Your task to perform on an android device: change notification settings in the gmail app Image 0: 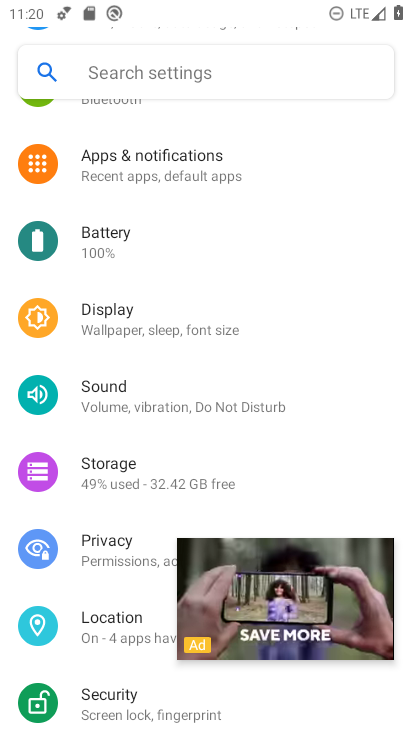
Step 0: click (313, 575)
Your task to perform on an android device: change notification settings in the gmail app Image 1: 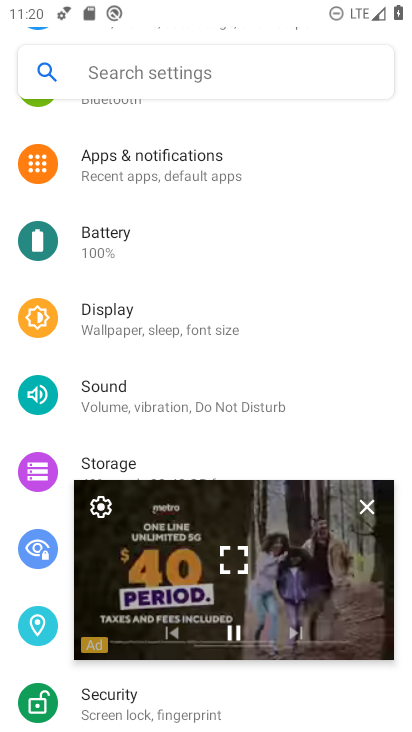
Step 1: click (363, 517)
Your task to perform on an android device: change notification settings in the gmail app Image 2: 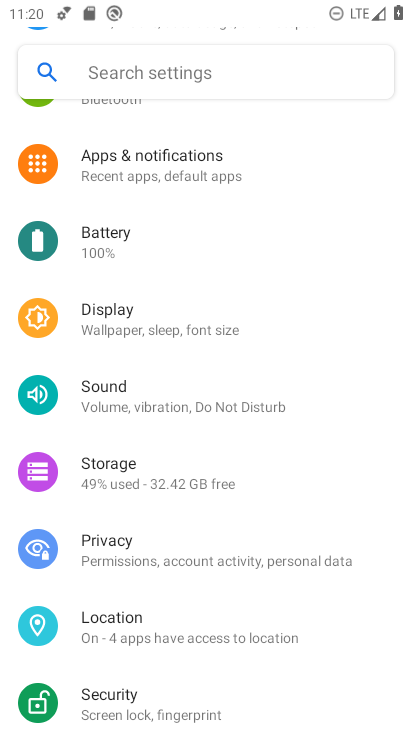
Step 2: click (177, 167)
Your task to perform on an android device: change notification settings in the gmail app Image 3: 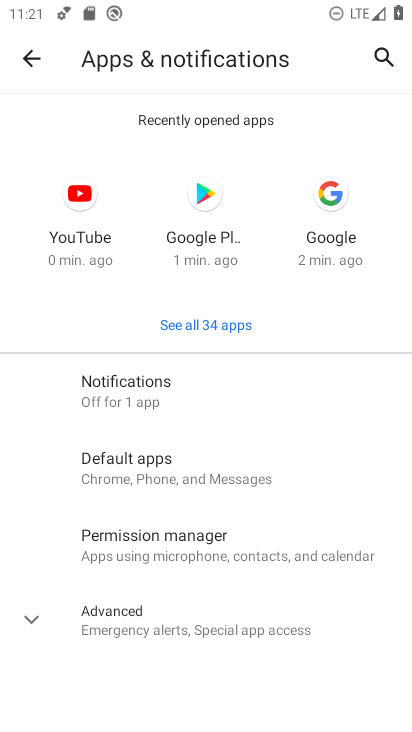
Step 3: click (182, 408)
Your task to perform on an android device: change notification settings in the gmail app Image 4: 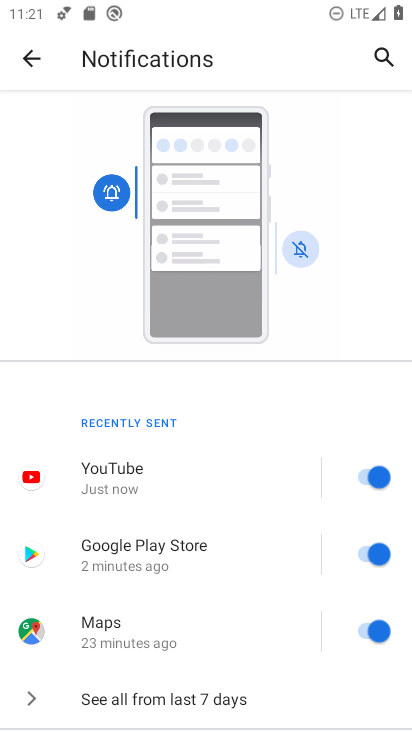
Step 4: drag from (139, 569) to (132, 278)
Your task to perform on an android device: change notification settings in the gmail app Image 5: 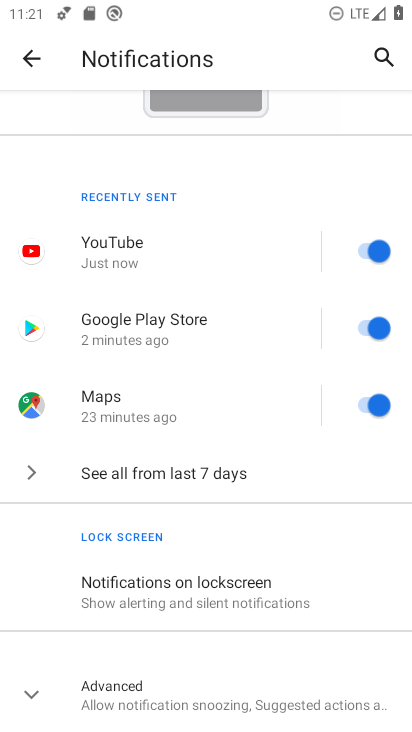
Step 5: drag from (168, 677) to (209, 442)
Your task to perform on an android device: change notification settings in the gmail app Image 6: 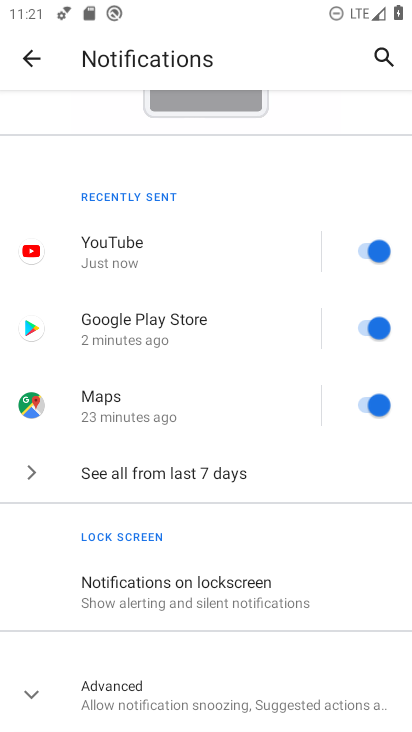
Step 6: click (159, 687)
Your task to perform on an android device: change notification settings in the gmail app Image 7: 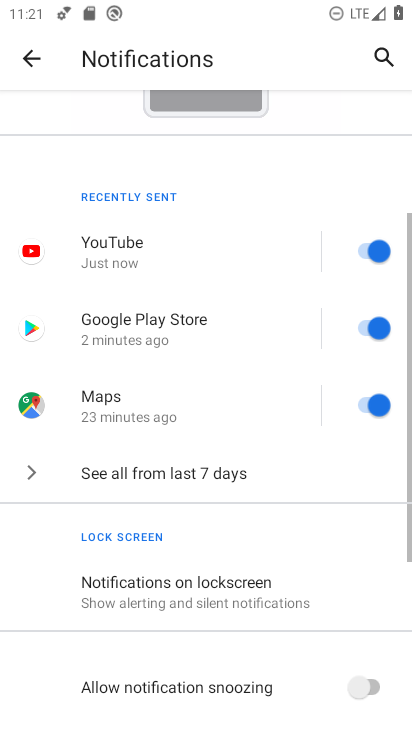
Step 7: drag from (178, 648) to (190, 398)
Your task to perform on an android device: change notification settings in the gmail app Image 8: 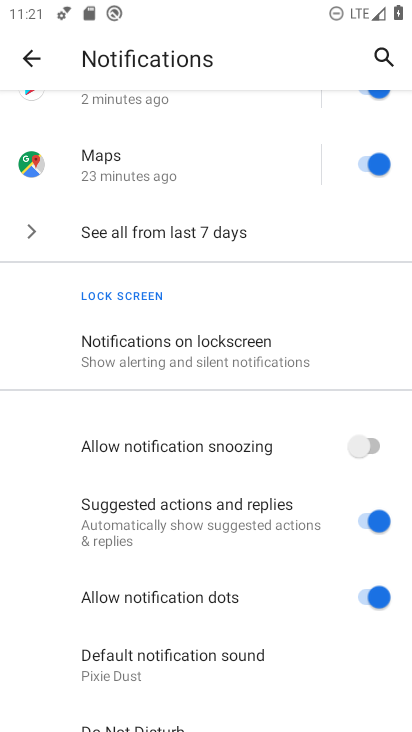
Step 8: press home button
Your task to perform on an android device: change notification settings in the gmail app Image 9: 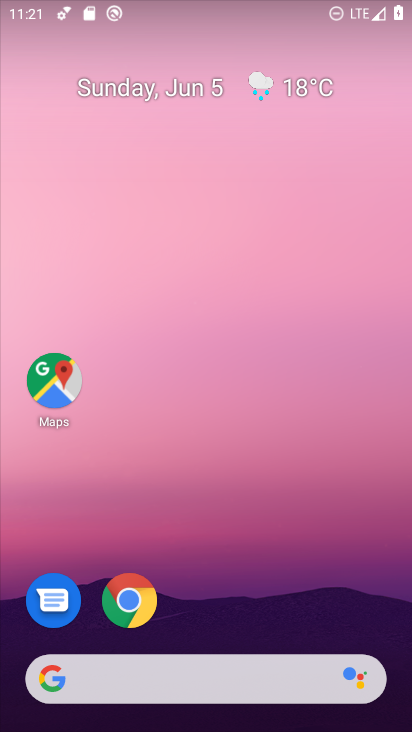
Step 9: drag from (220, 522) to (207, 181)
Your task to perform on an android device: change notification settings in the gmail app Image 10: 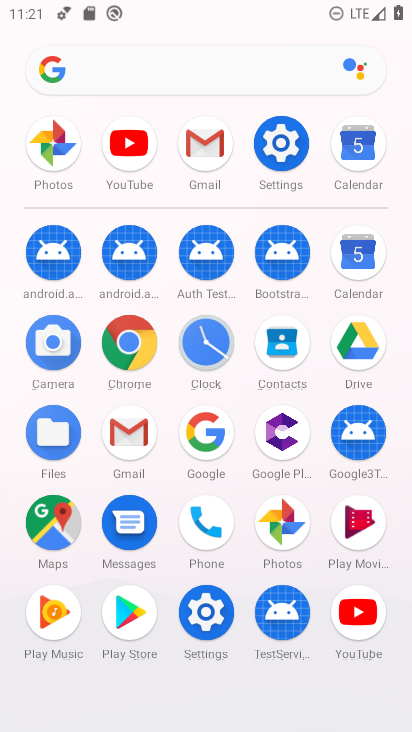
Step 10: click (193, 143)
Your task to perform on an android device: change notification settings in the gmail app Image 11: 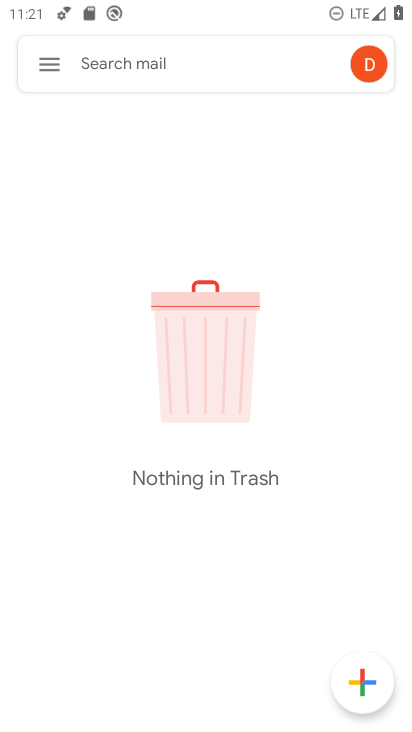
Step 11: click (55, 61)
Your task to perform on an android device: change notification settings in the gmail app Image 12: 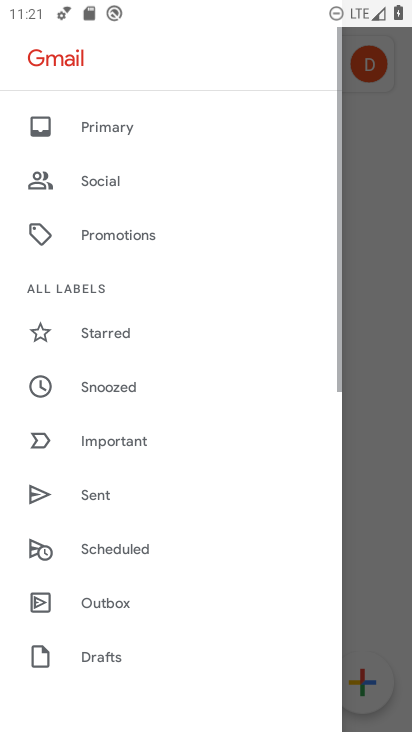
Step 12: drag from (167, 633) to (192, 275)
Your task to perform on an android device: change notification settings in the gmail app Image 13: 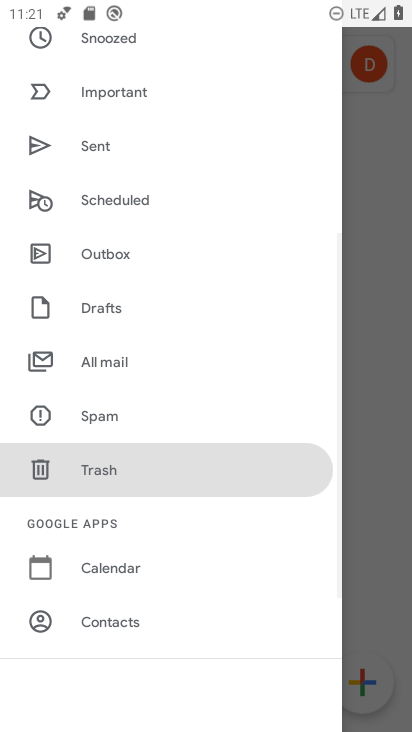
Step 13: drag from (117, 609) to (127, 315)
Your task to perform on an android device: change notification settings in the gmail app Image 14: 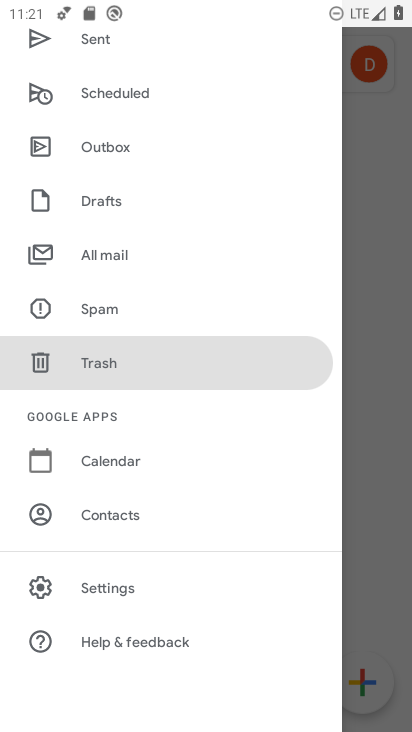
Step 14: click (123, 596)
Your task to perform on an android device: change notification settings in the gmail app Image 15: 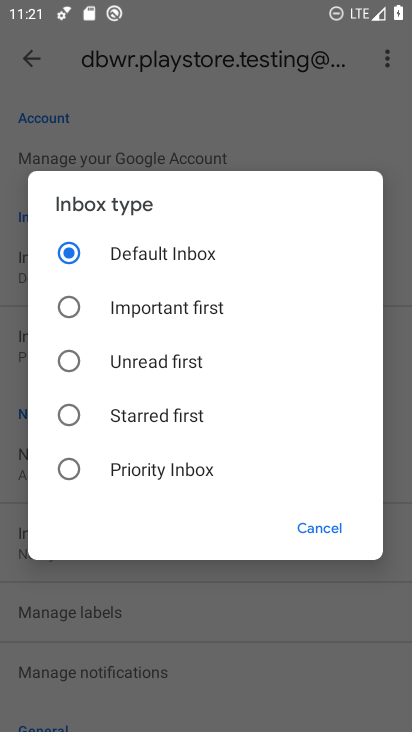
Step 15: click (308, 521)
Your task to perform on an android device: change notification settings in the gmail app Image 16: 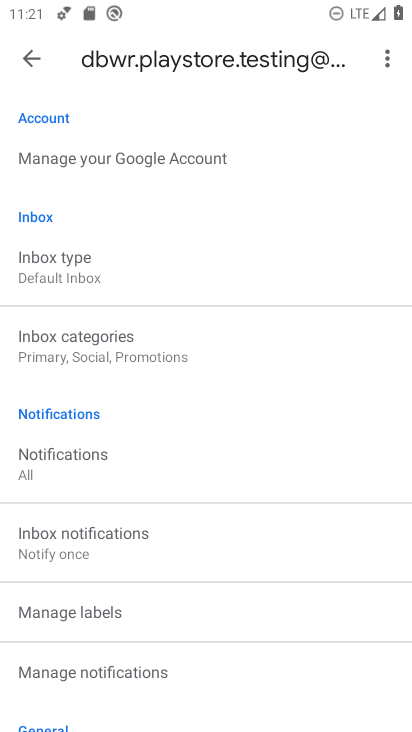
Step 16: click (151, 678)
Your task to perform on an android device: change notification settings in the gmail app Image 17: 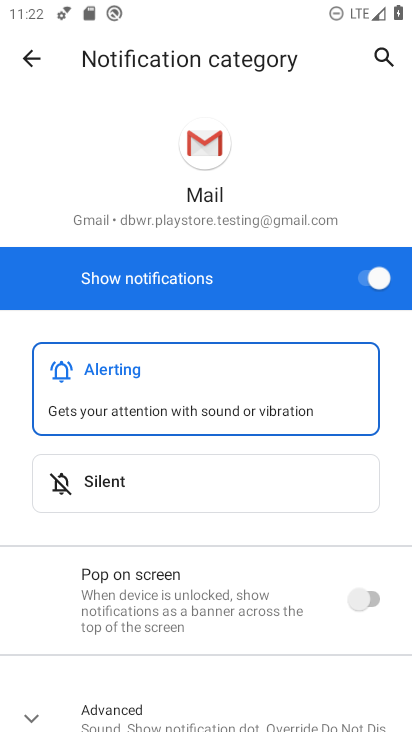
Step 17: drag from (222, 595) to (223, 495)
Your task to perform on an android device: change notification settings in the gmail app Image 18: 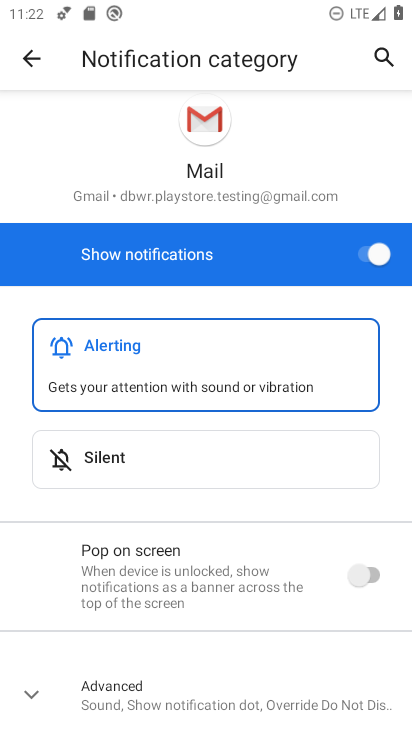
Step 18: click (355, 246)
Your task to perform on an android device: change notification settings in the gmail app Image 19: 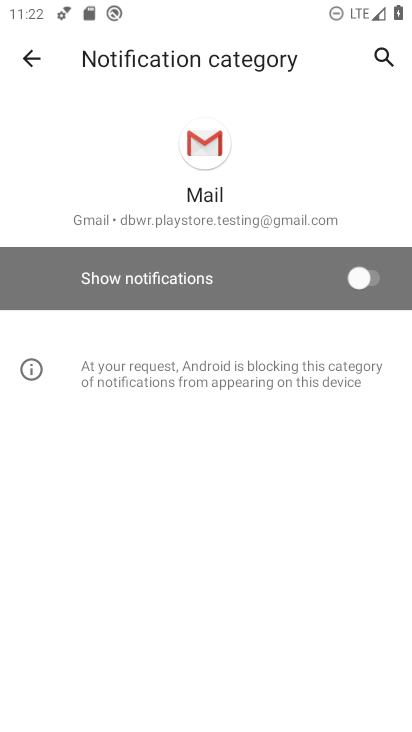
Step 19: task complete